Your task to perform on an android device: When is my next appointment? Image 0: 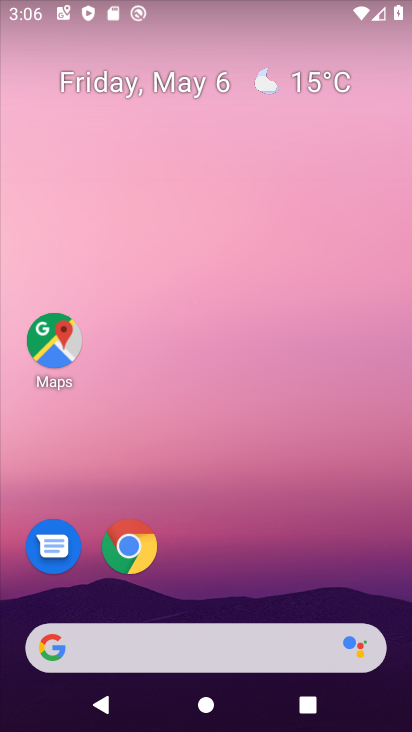
Step 0: drag from (189, 625) to (204, 295)
Your task to perform on an android device: When is my next appointment? Image 1: 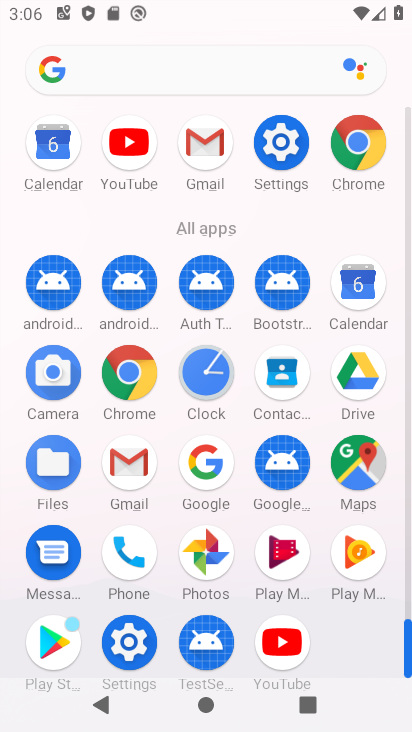
Step 1: click (364, 287)
Your task to perform on an android device: When is my next appointment? Image 2: 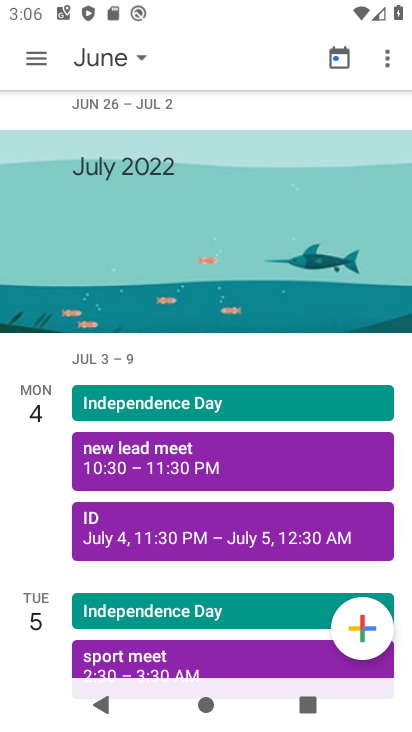
Step 2: click (89, 63)
Your task to perform on an android device: When is my next appointment? Image 3: 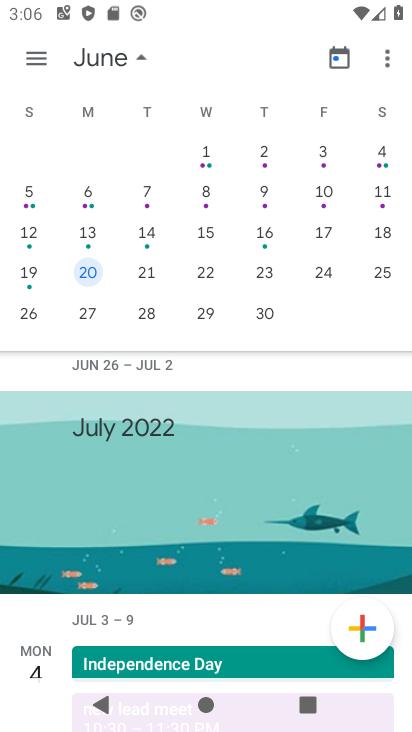
Step 3: drag from (49, 229) to (295, 237)
Your task to perform on an android device: When is my next appointment? Image 4: 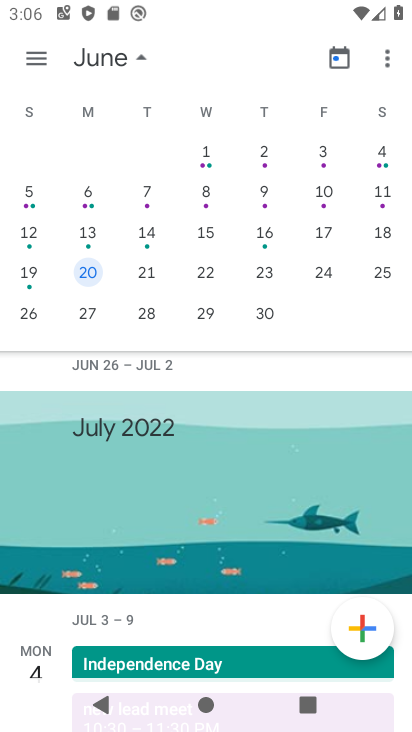
Step 4: drag from (65, 244) to (342, 238)
Your task to perform on an android device: When is my next appointment? Image 5: 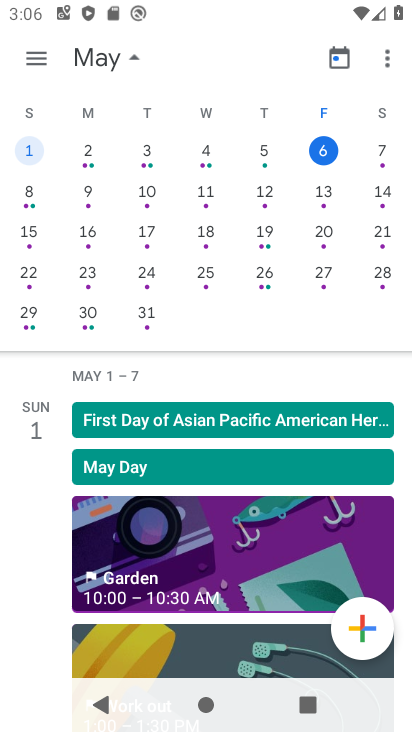
Step 5: click (34, 58)
Your task to perform on an android device: When is my next appointment? Image 6: 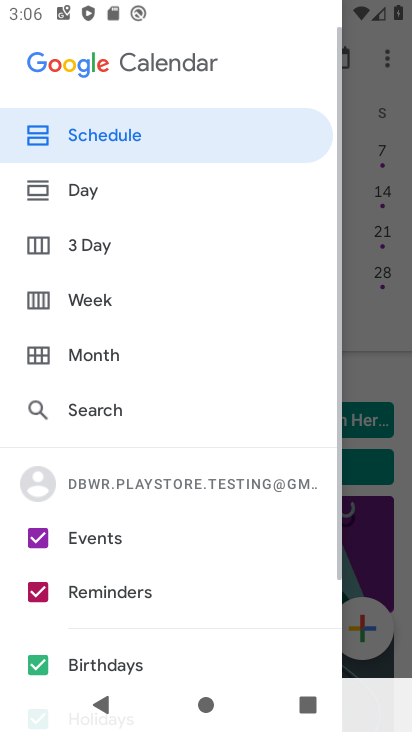
Step 6: click (95, 132)
Your task to perform on an android device: When is my next appointment? Image 7: 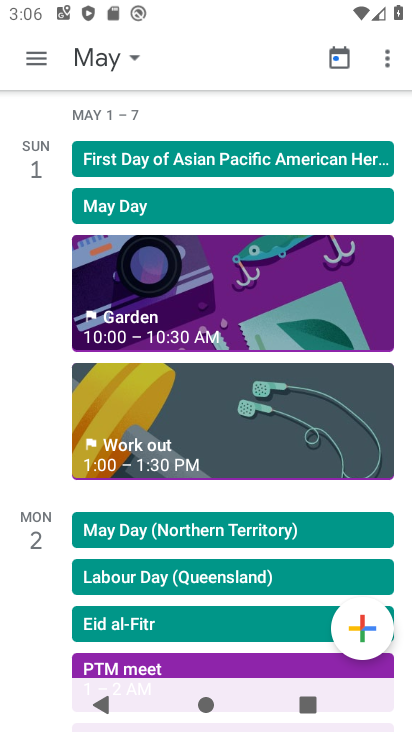
Step 7: task complete